Your task to perform on an android device: open sync settings in chrome Image 0: 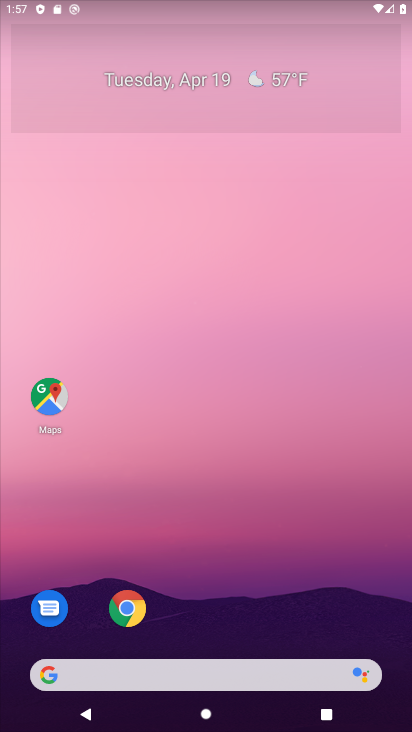
Step 0: click (134, 610)
Your task to perform on an android device: open sync settings in chrome Image 1: 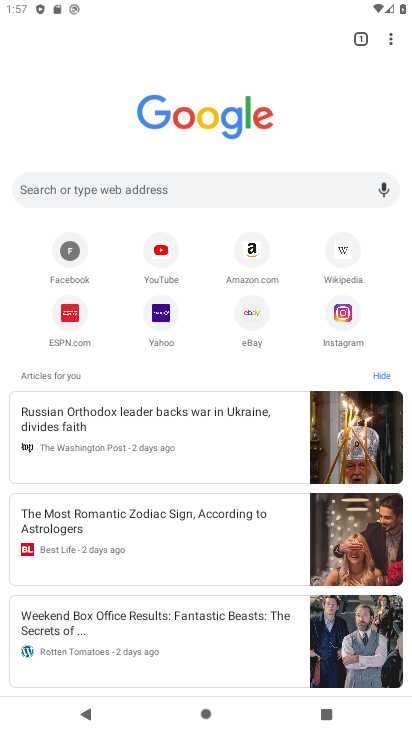
Step 1: click (391, 42)
Your task to perform on an android device: open sync settings in chrome Image 2: 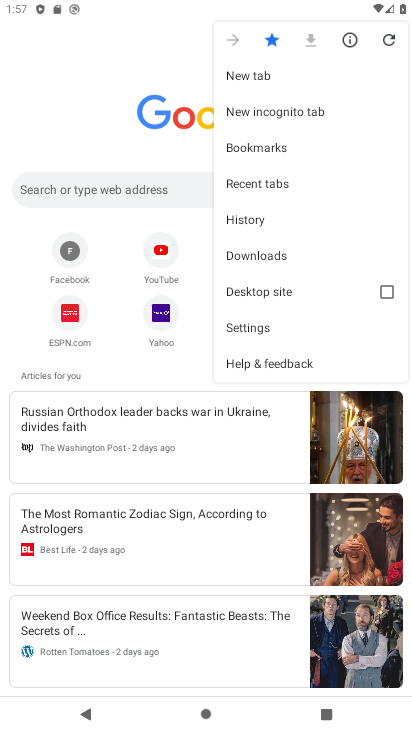
Step 2: click (253, 318)
Your task to perform on an android device: open sync settings in chrome Image 3: 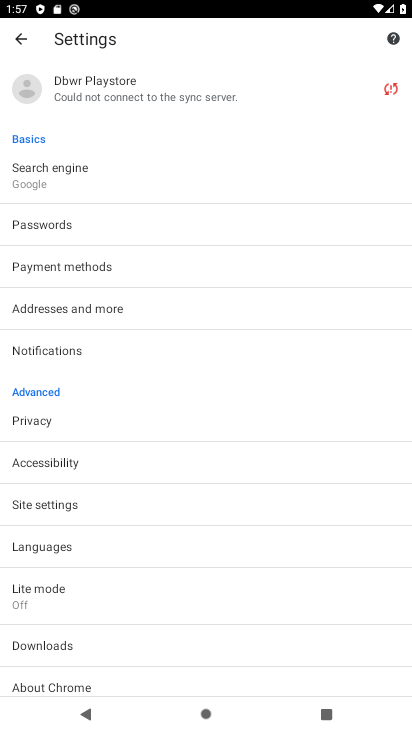
Step 3: click (164, 502)
Your task to perform on an android device: open sync settings in chrome Image 4: 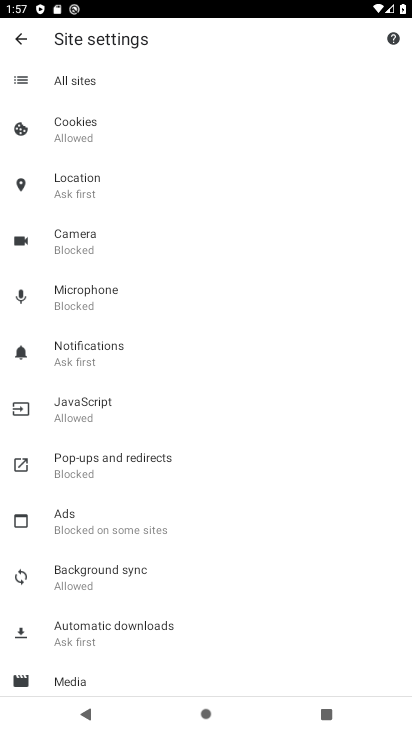
Step 4: click (191, 583)
Your task to perform on an android device: open sync settings in chrome Image 5: 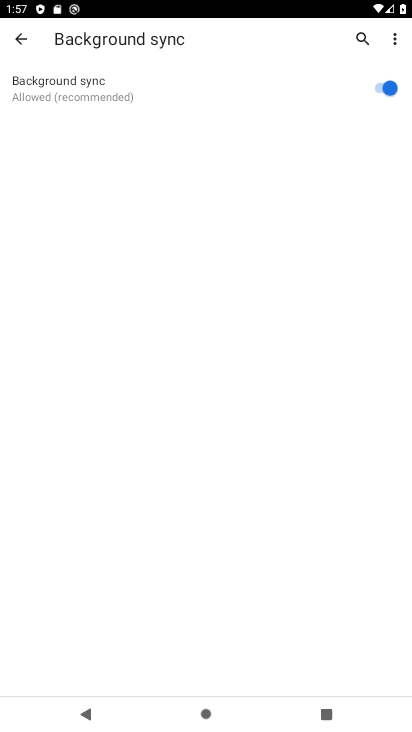
Step 5: task complete